Your task to perform on an android device: read, delete, or share a saved page in the chrome app Image 0: 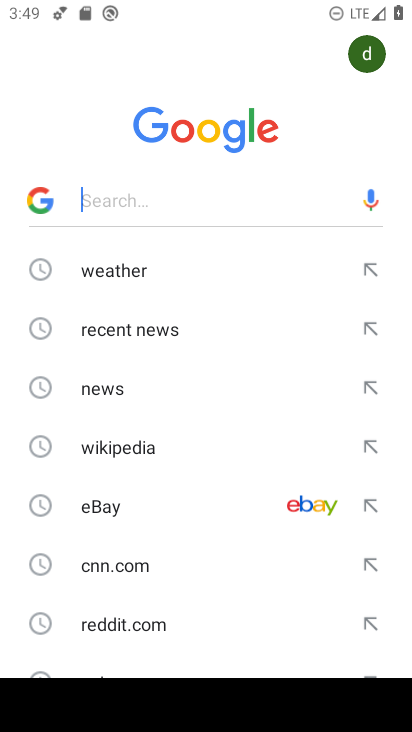
Step 0: press home button
Your task to perform on an android device: read, delete, or share a saved page in the chrome app Image 1: 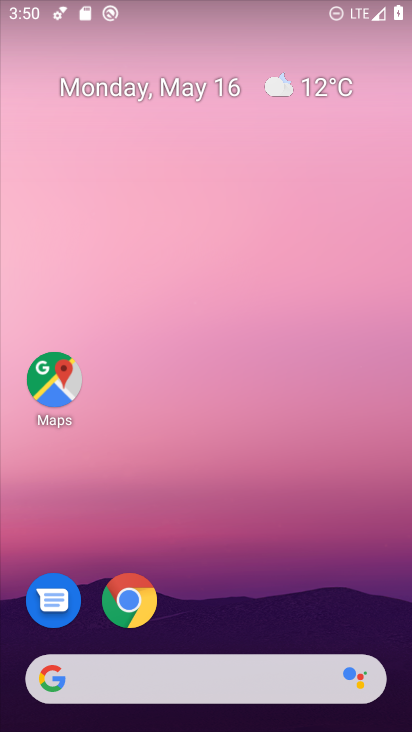
Step 1: click (130, 594)
Your task to perform on an android device: read, delete, or share a saved page in the chrome app Image 2: 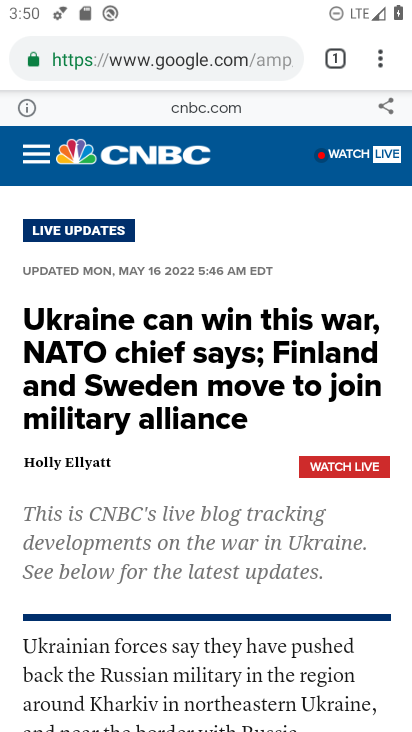
Step 2: task complete